Your task to perform on an android device: Check the weather Image 0: 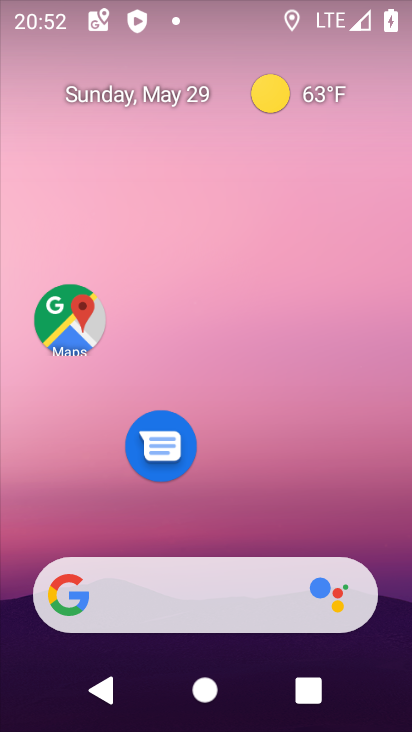
Step 0: drag from (218, 493) to (195, 169)
Your task to perform on an android device: Check the weather Image 1: 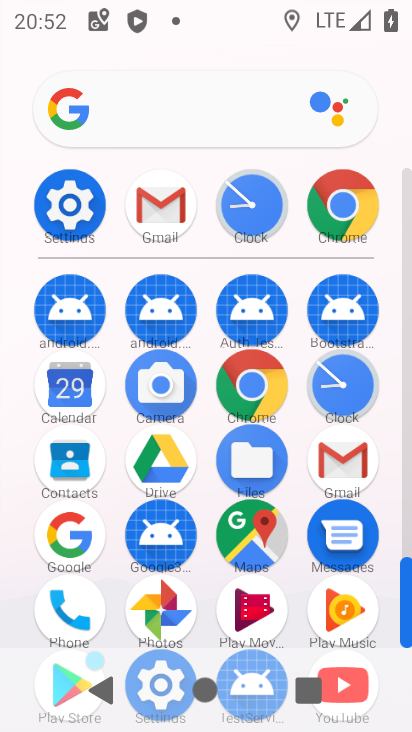
Step 1: click (77, 520)
Your task to perform on an android device: Check the weather Image 2: 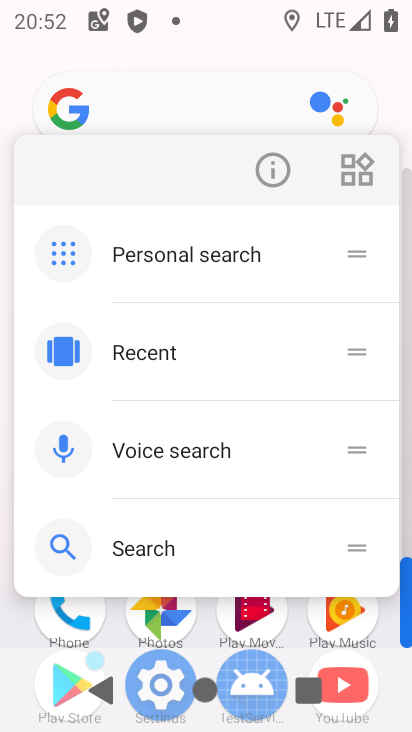
Step 2: click (6, 600)
Your task to perform on an android device: Check the weather Image 3: 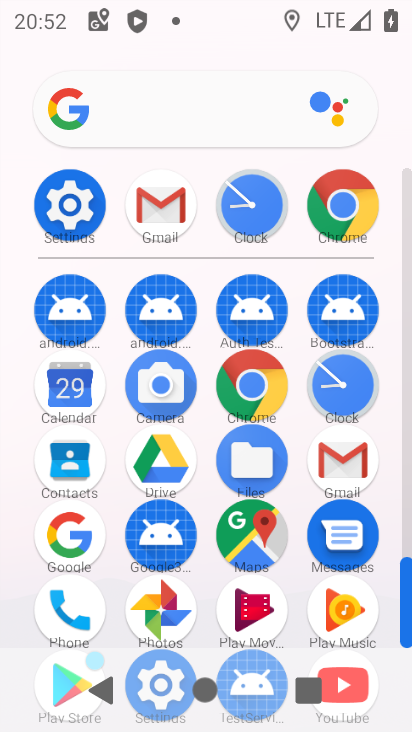
Step 3: click (39, 544)
Your task to perform on an android device: Check the weather Image 4: 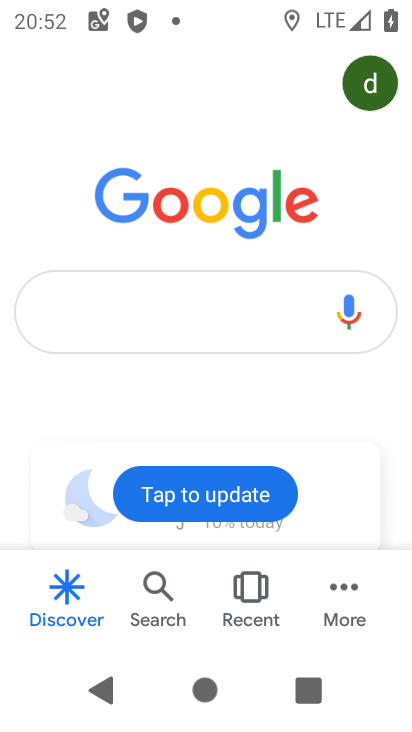
Step 4: drag from (141, 430) to (155, 202)
Your task to perform on an android device: Check the weather Image 5: 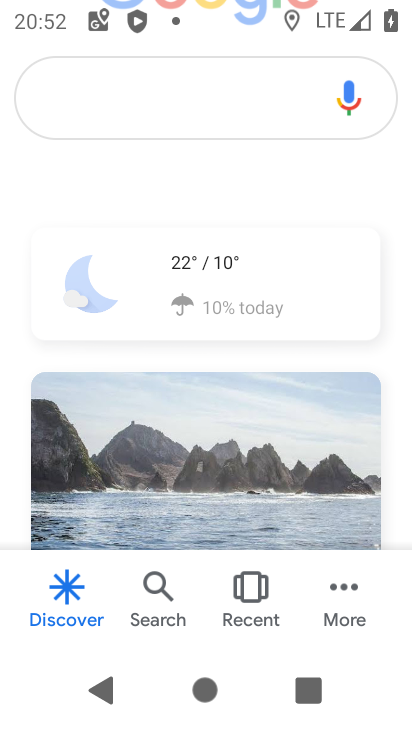
Step 5: click (166, 308)
Your task to perform on an android device: Check the weather Image 6: 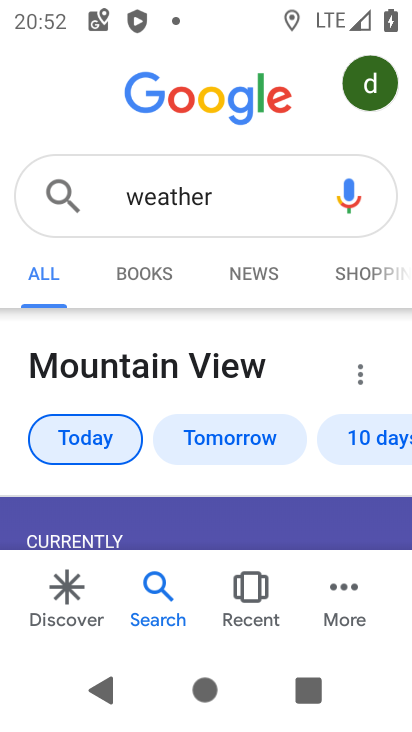
Step 6: task complete